Your task to perform on an android device: set default search engine in the chrome app Image 0: 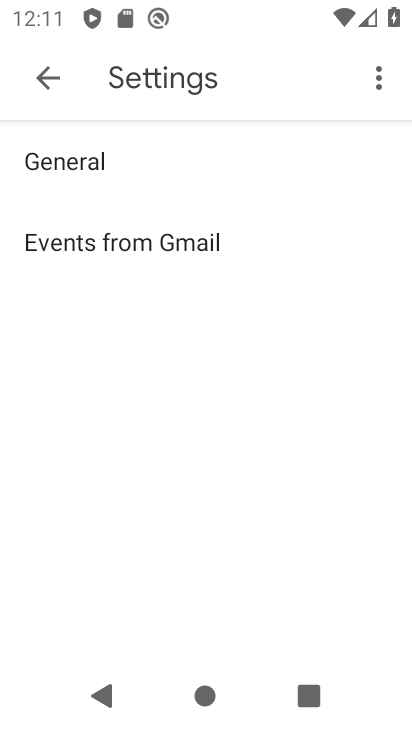
Step 0: press home button
Your task to perform on an android device: set default search engine in the chrome app Image 1: 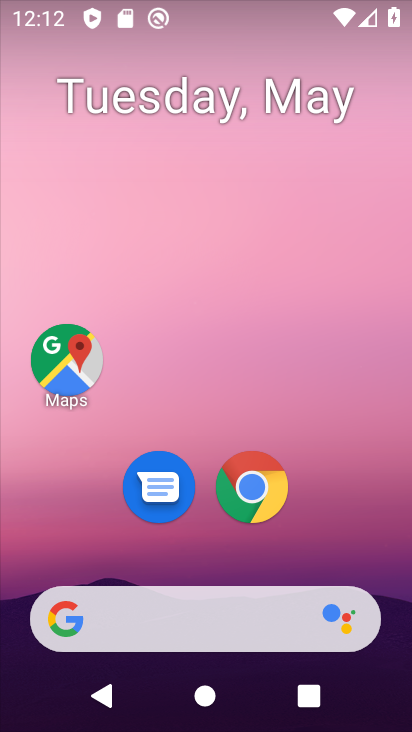
Step 1: click (251, 484)
Your task to perform on an android device: set default search engine in the chrome app Image 2: 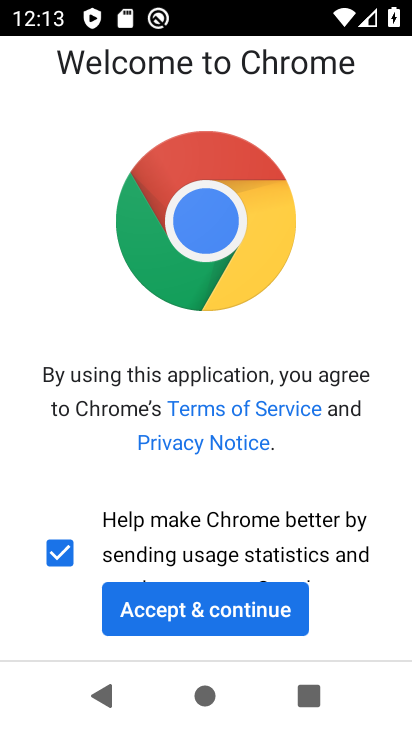
Step 2: click (181, 622)
Your task to perform on an android device: set default search engine in the chrome app Image 3: 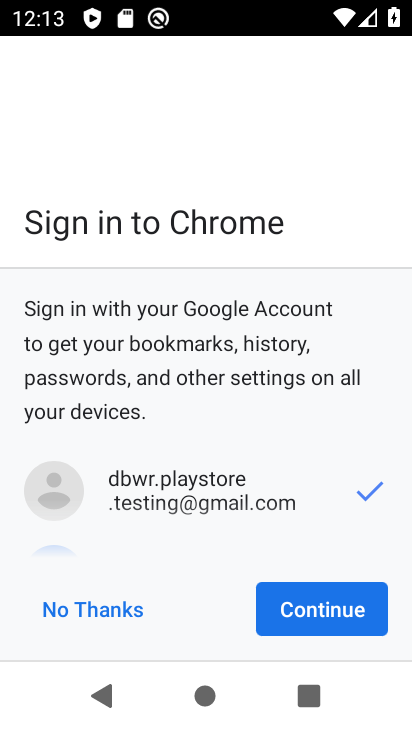
Step 3: click (304, 595)
Your task to perform on an android device: set default search engine in the chrome app Image 4: 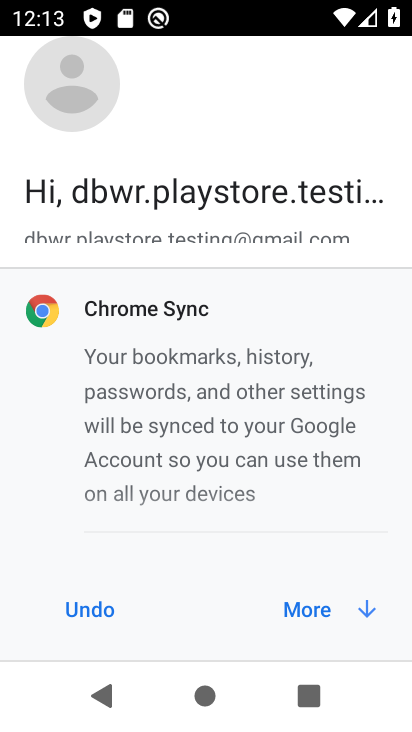
Step 4: click (300, 610)
Your task to perform on an android device: set default search engine in the chrome app Image 5: 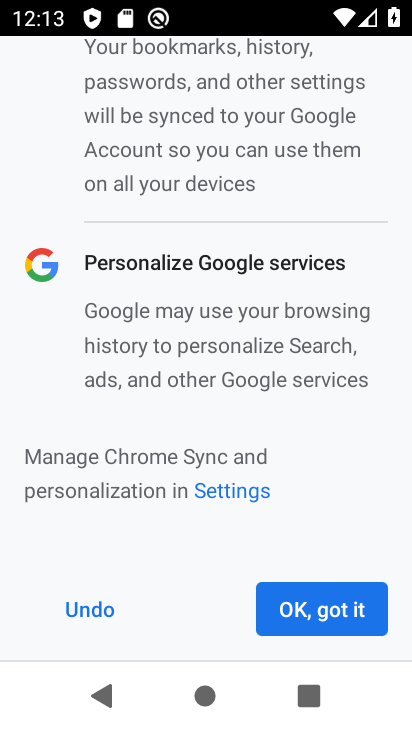
Step 5: click (300, 610)
Your task to perform on an android device: set default search engine in the chrome app Image 6: 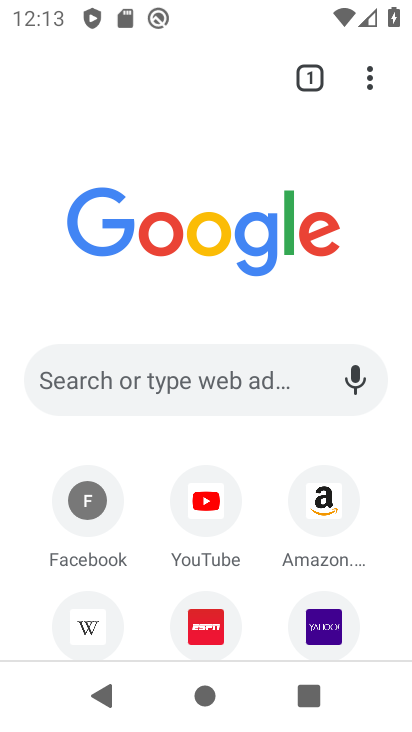
Step 6: click (375, 78)
Your task to perform on an android device: set default search engine in the chrome app Image 7: 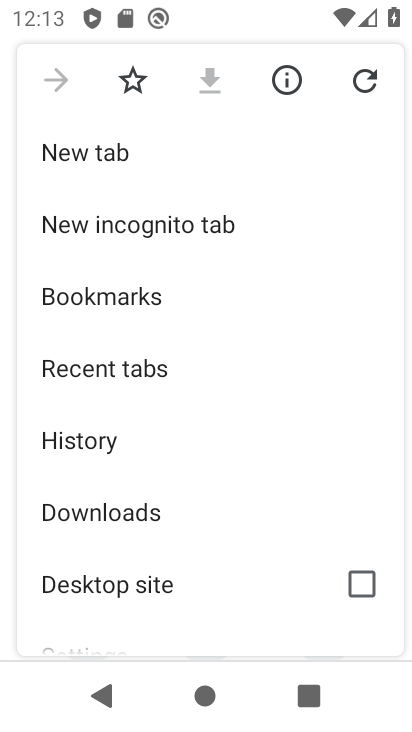
Step 7: drag from (225, 565) to (212, 292)
Your task to perform on an android device: set default search engine in the chrome app Image 8: 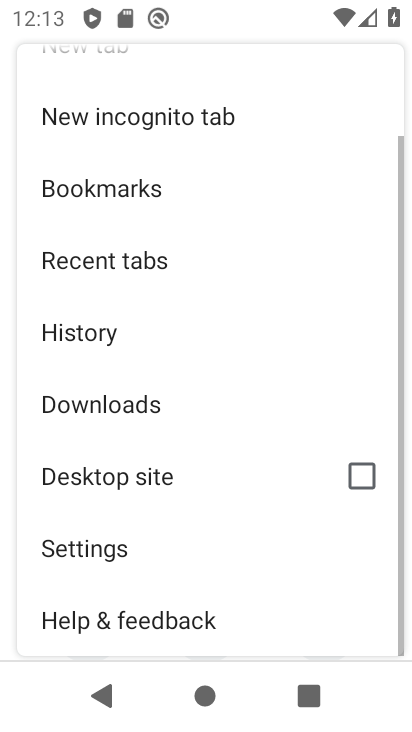
Step 8: click (134, 551)
Your task to perform on an android device: set default search engine in the chrome app Image 9: 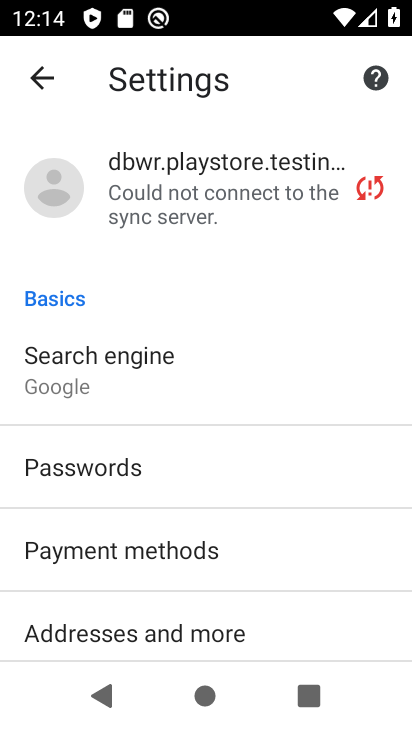
Step 9: drag from (266, 596) to (234, 280)
Your task to perform on an android device: set default search engine in the chrome app Image 10: 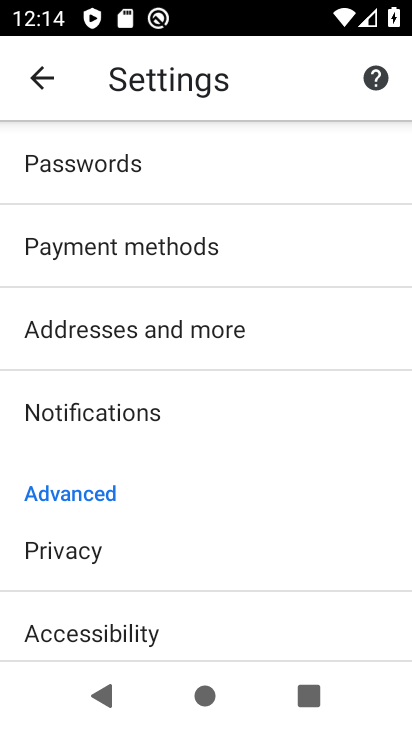
Step 10: drag from (291, 589) to (265, 317)
Your task to perform on an android device: set default search engine in the chrome app Image 11: 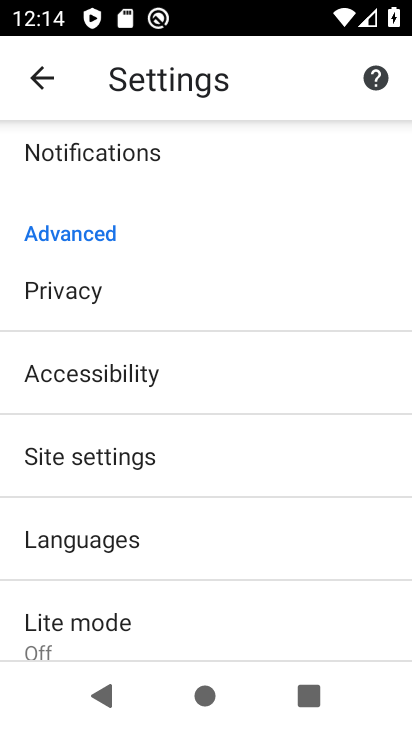
Step 11: drag from (280, 212) to (283, 603)
Your task to perform on an android device: set default search engine in the chrome app Image 12: 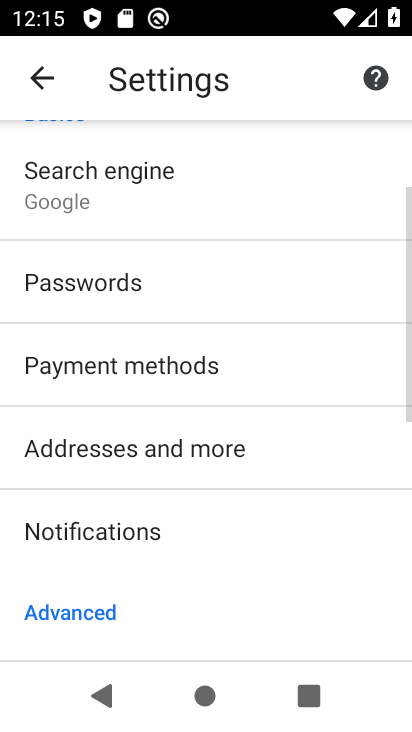
Step 12: drag from (283, 210) to (284, 332)
Your task to perform on an android device: set default search engine in the chrome app Image 13: 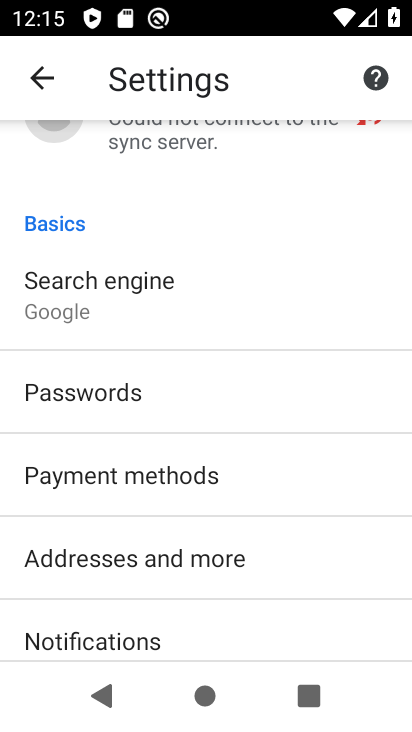
Step 13: click (103, 325)
Your task to perform on an android device: set default search engine in the chrome app Image 14: 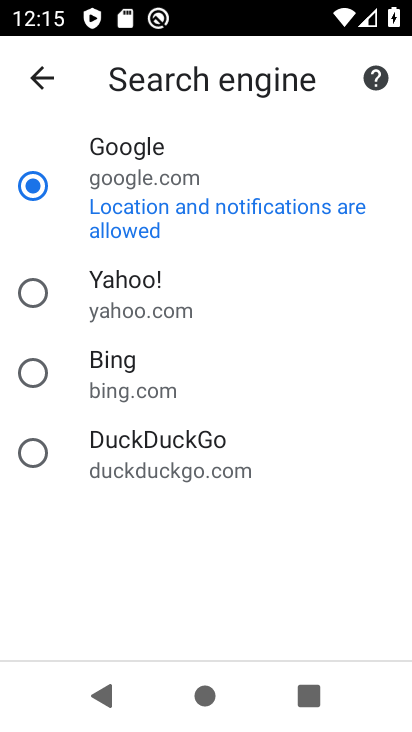
Step 14: task complete